Your task to perform on an android device: allow cookies in the chrome app Image 0: 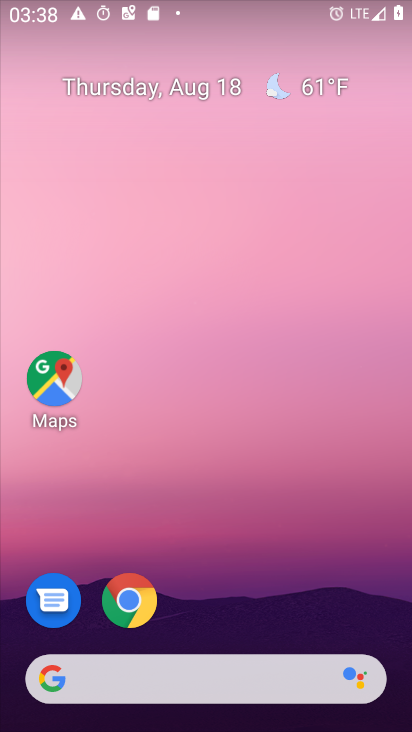
Step 0: press home button
Your task to perform on an android device: allow cookies in the chrome app Image 1: 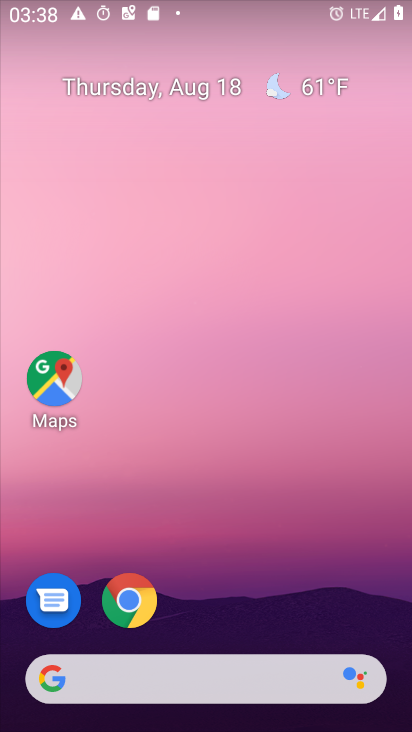
Step 1: click (141, 602)
Your task to perform on an android device: allow cookies in the chrome app Image 2: 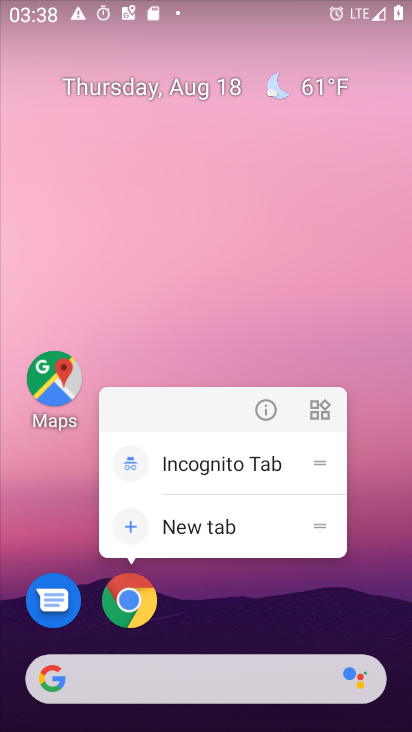
Step 2: click (137, 600)
Your task to perform on an android device: allow cookies in the chrome app Image 3: 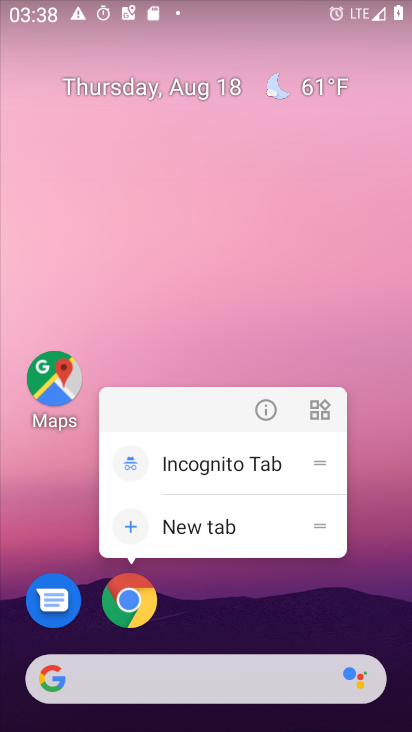
Step 3: click (142, 609)
Your task to perform on an android device: allow cookies in the chrome app Image 4: 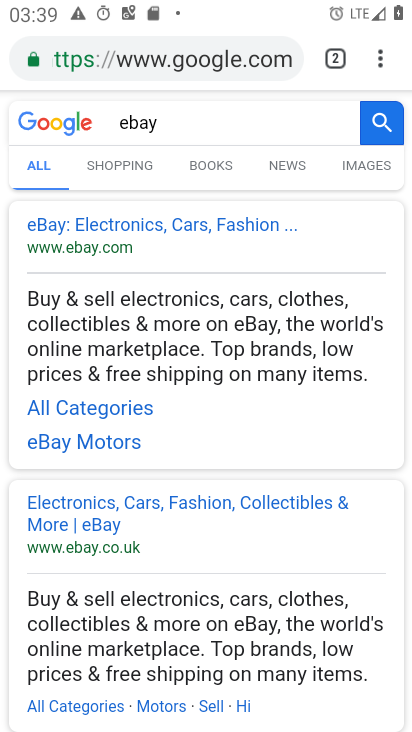
Step 4: drag from (378, 60) to (160, 646)
Your task to perform on an android device: allow cookies in the chrome app Image 5: 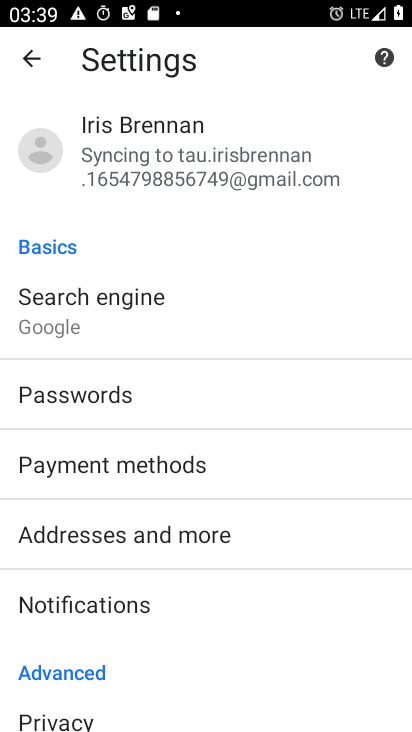
Step 5: drag from (279, 632) to (269, 401)
Your task to perform on an android device: allow cookies in the chrome app Image 6: 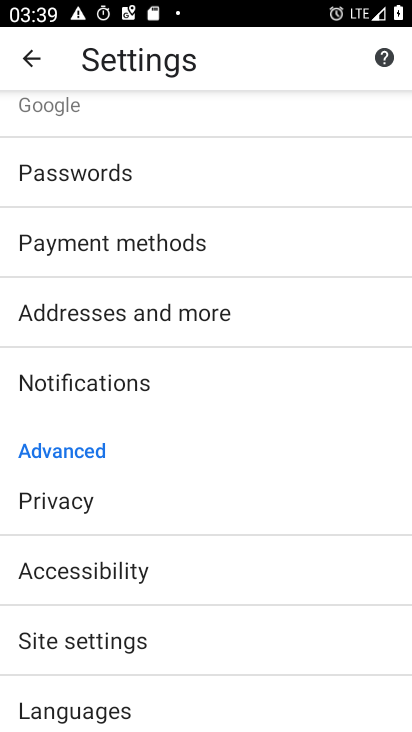
Step 6: click (89, 647)
Your task to perform on an android device: allow cookies in the chrome app Image 7: 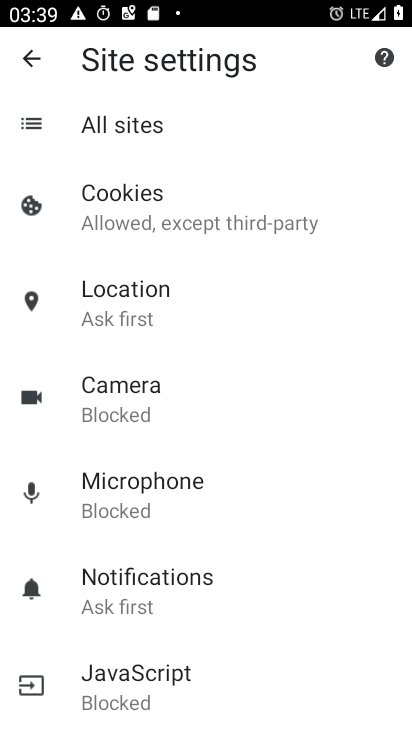
Step 7: click (121, 213)
Your task to perform on an android device: allow cookies in the chrome app Image 8: 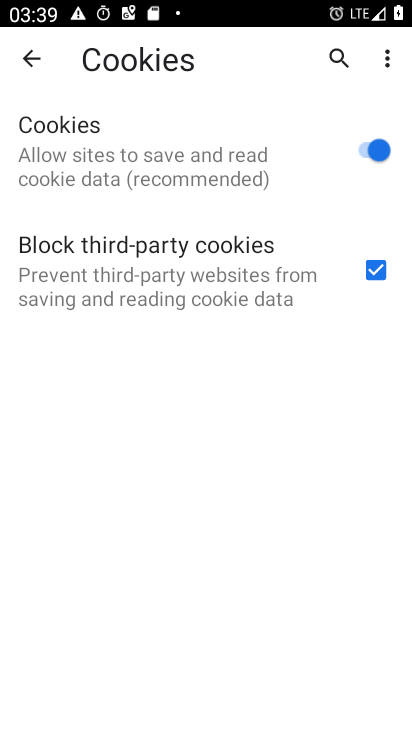
Step 8: task complete